Your task to perform on an android device: Do I have any events tomorrow? Image 0: 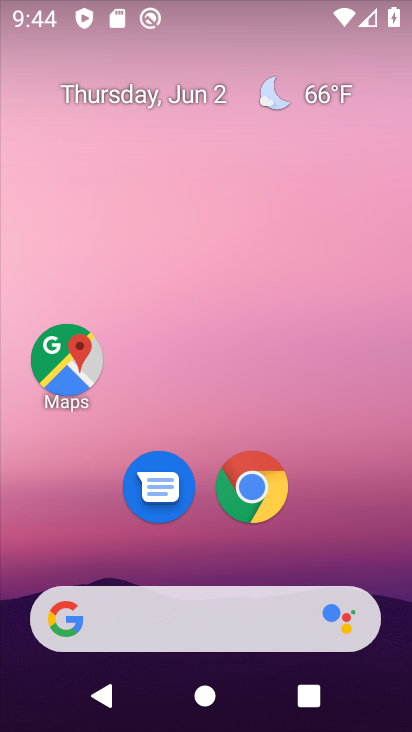
Step 0: drag from (242, 720) to (247, 159)
Your task to perform on an android device: Do I have any events tomorrow? Image 1: 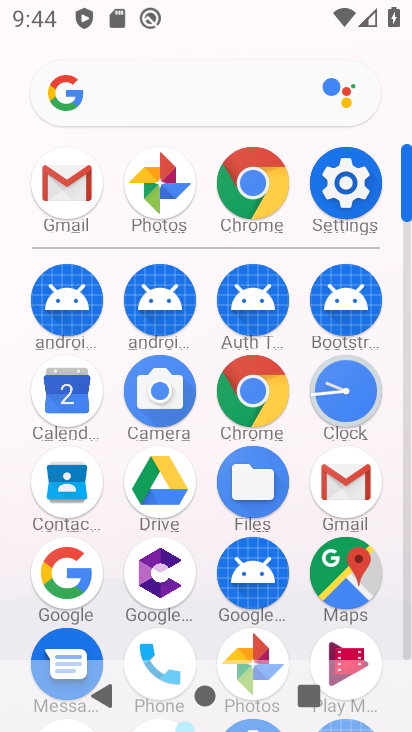
Step 1: click (56, 402)
Your task to perform on an android device: Do I have any events tomorrow? Image 2: 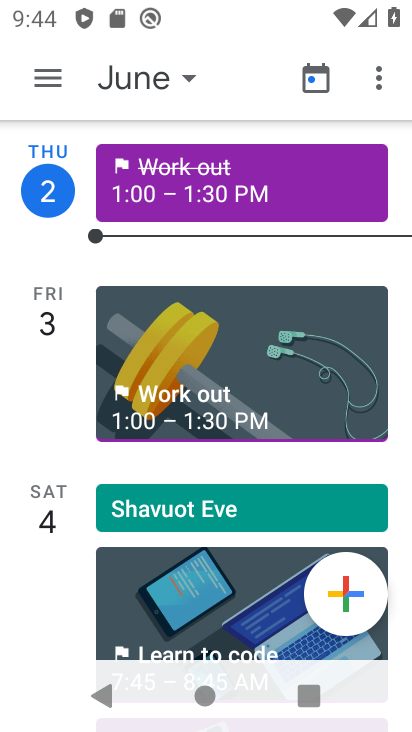
Step 2: click (49, 80)
Your task to perform on an android device: Do I have any events tomorrow? Image 3: 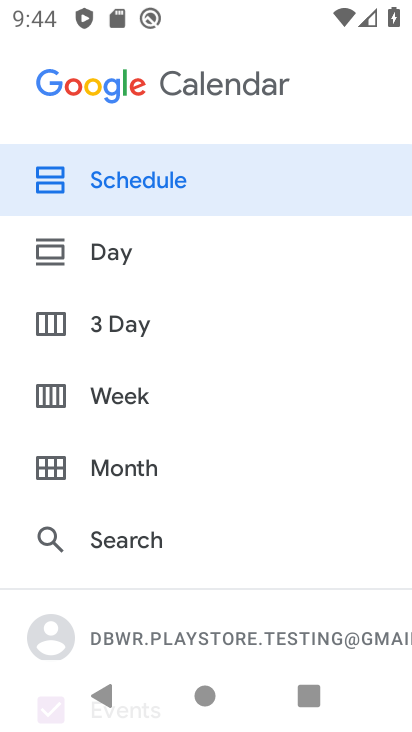
Step 3: drag from (152, 645) to (180, 255)
Your task to perform on an android device: Do I have any events tomorrow? Image 4: 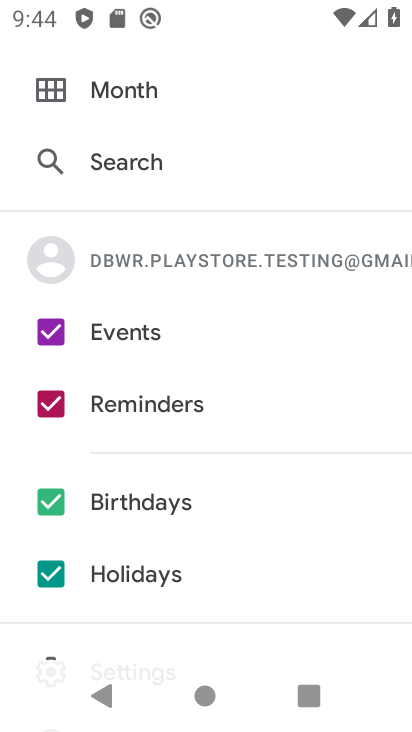
Step 4: click (50, 567)
Your task to perform on an android device: Do I have any events tomorrow? Image 5: 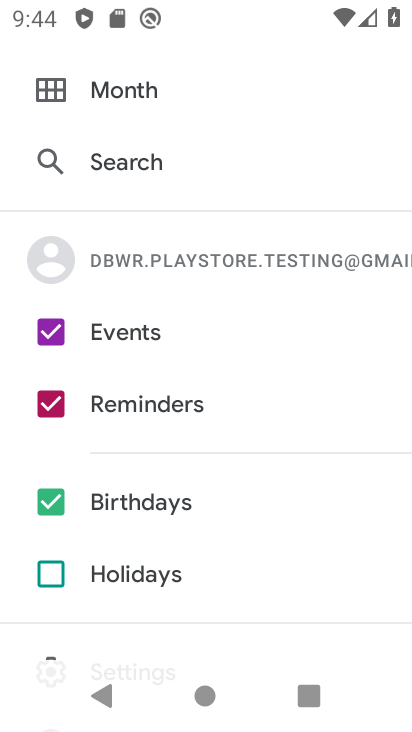
Step 5: click (52, 502)
Your task to perform on an android device: Do I have any events tomorrow? Image 6: 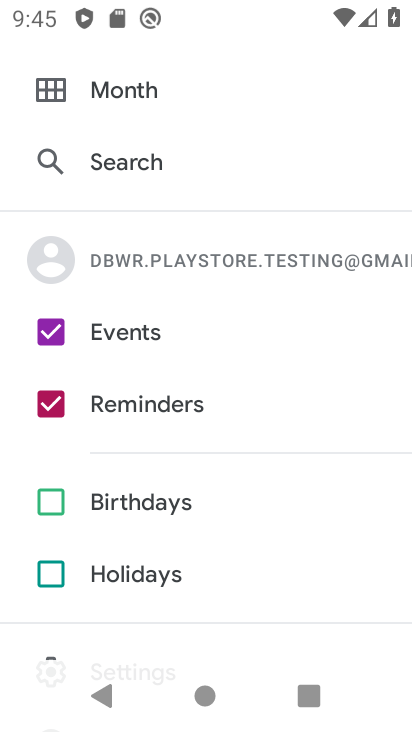
Step 6: click (53, 401)
Your task to perform on an android device: Do I have any events tomorrow? Image 7: 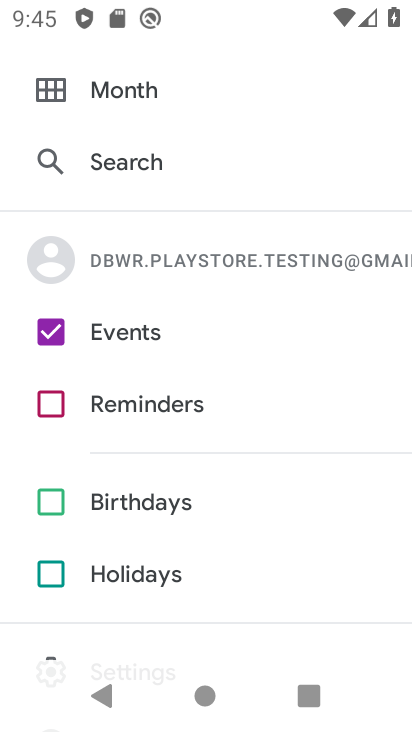
Step 7: drag from (258, 106) to (256, 486)
Your task to perform on an android device: Do I have any events tomorrow? Image 8: 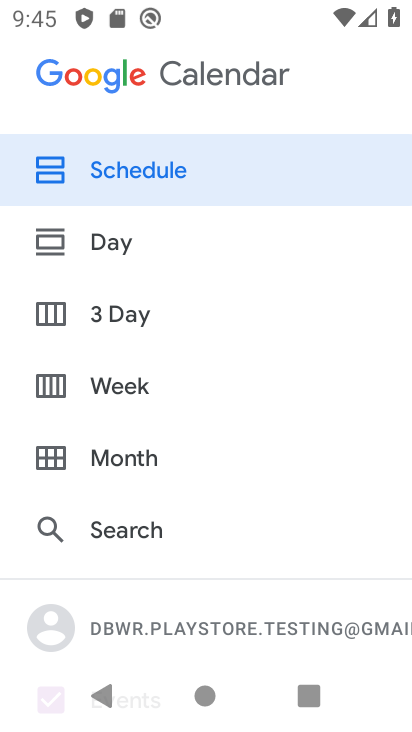
Step 8: click (133, 177)
Your task to perform on an android device: Do I have any events tomorrow? Image 9: 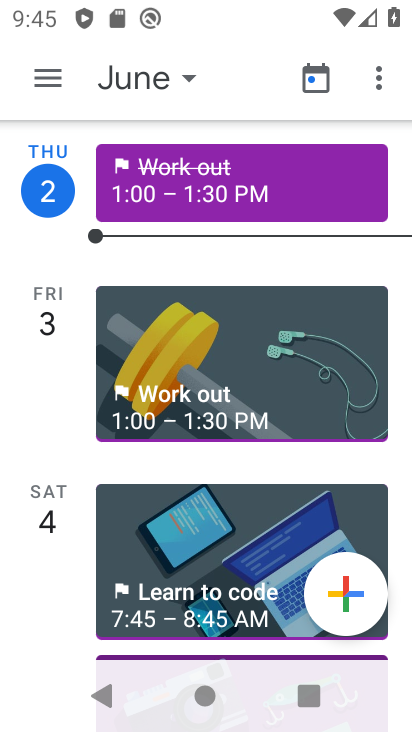
Step 9: click (190, 77)
Your task to perform on an android device: Do I have any events tomorrow? Image 10: 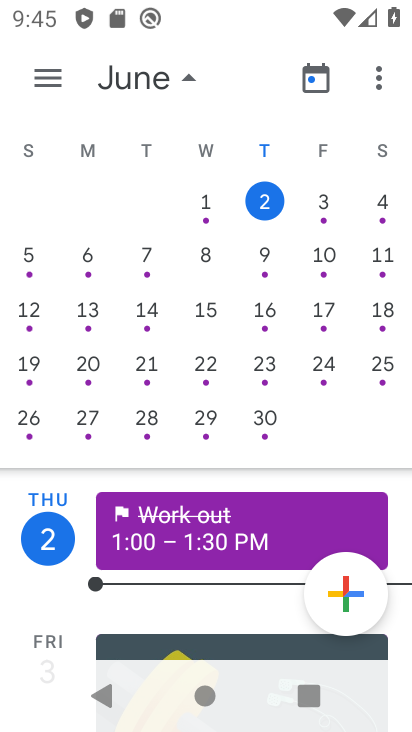
Step 10: click (323, 196)
Your task to perform on an android device: Do I have any events tomorrow? Image 11: 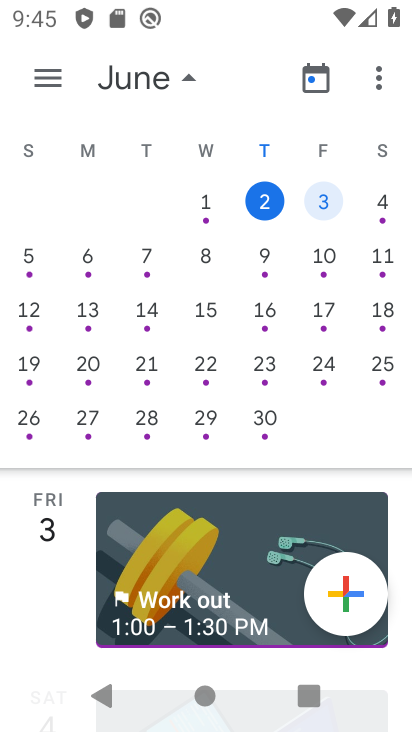
Step 11: click (323, 196)
Your task to perform on an android device: Do I have any events tomorrow? Image 12: 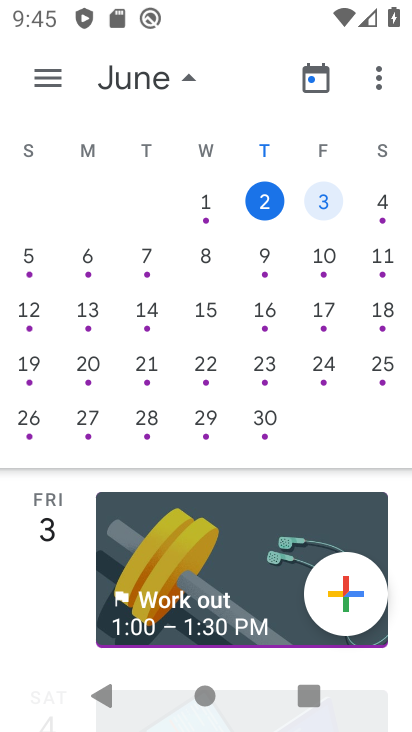
Step 12: click (323, 196)
Your task to perform on an android device: Do I have any events tomorrow? Image 13: 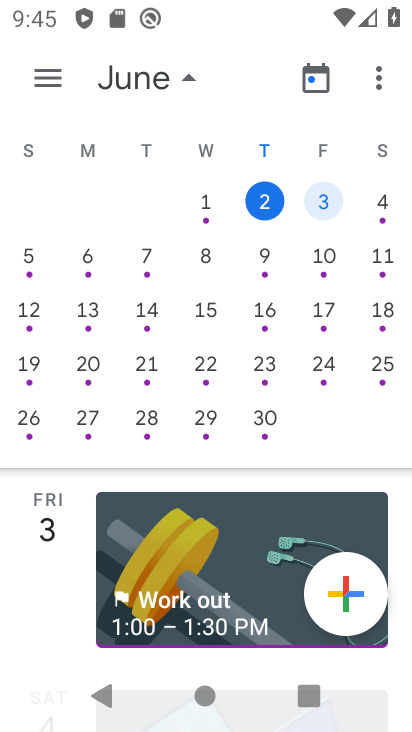
Step 13: click (321, 198)
Your task to perform on an android device: Do I have any events tomorrow? Image 14: 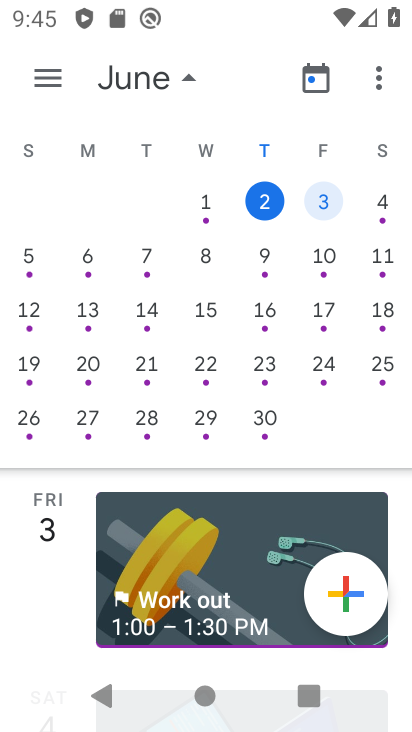
Step 14: click (321, 198)
Your task to perform on an android device: Do I have any events tomorrow? Image 15: 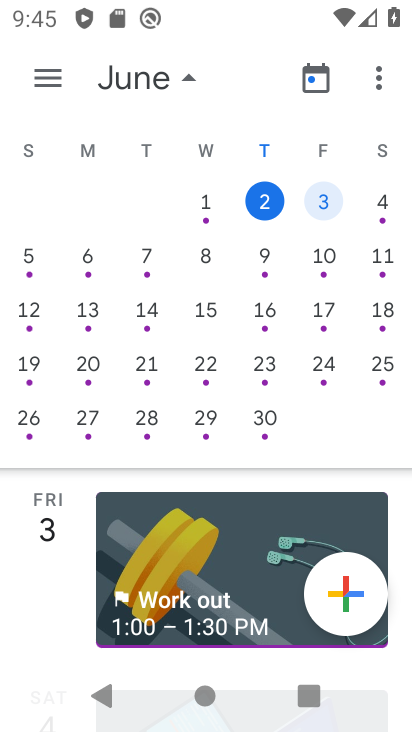
Step 15: click (319, 199)
Your task to perform on an android device: Do I have any events tomorrow? Image 16: 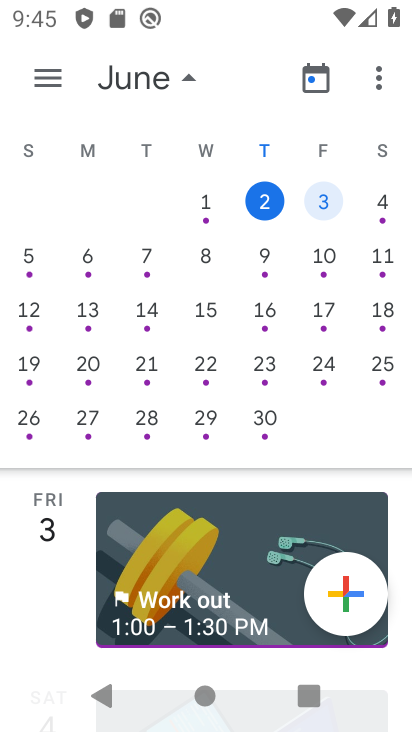
Step 16: click (193, 76)
Your task to perform on an android device: Do I have any events tomorrow? Image 17: 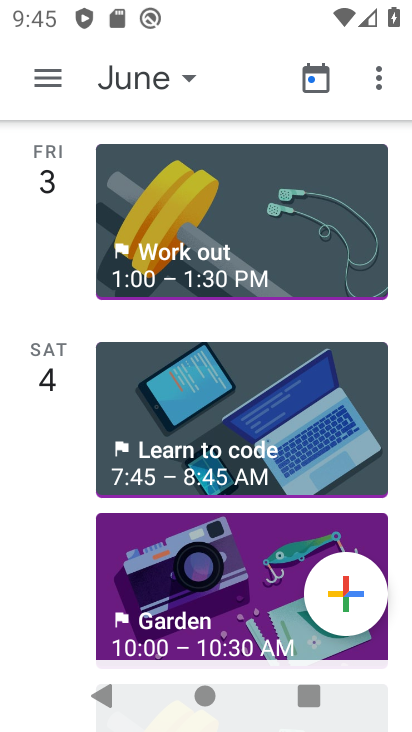
Step 17: task complete